Your task to perform on an android device: Open settings on Google Maps Image 0: 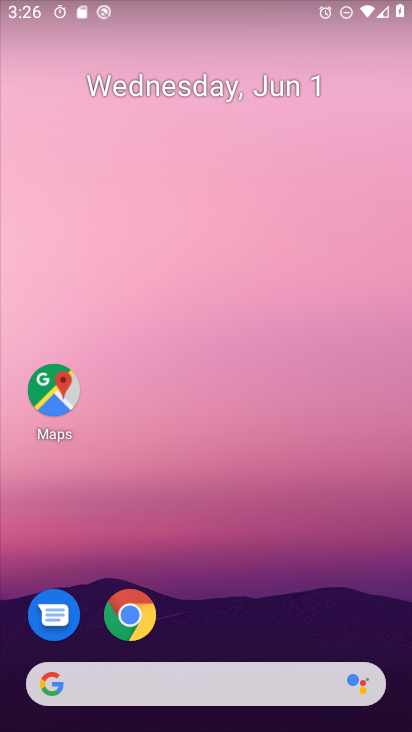
Step 0: drag from (294, 652) to (255, 31)
Your task to perform on an android device: Open settings on Google Maps Image 1: 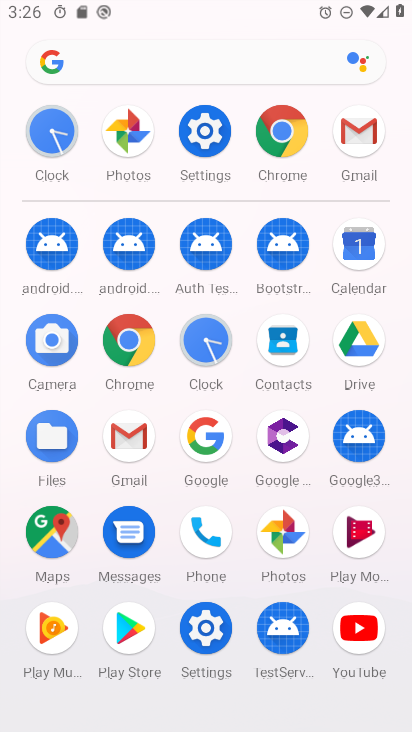
Step 1: click (52, 546)
Your task to perform on an android device: Open settings on Google Maps Image 2: 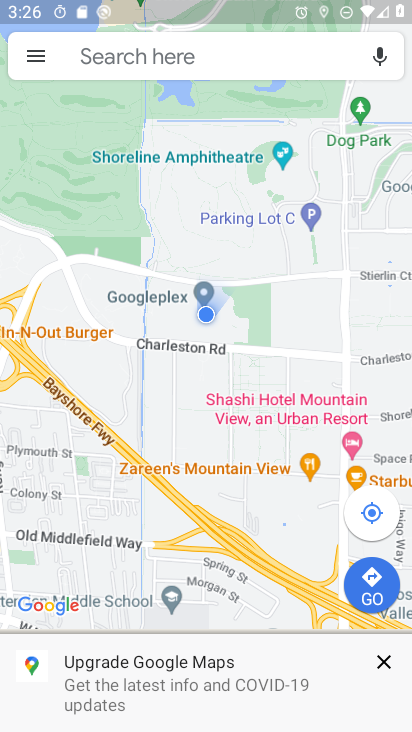
Step 2: click (38, 60)
Your task to perform on an android device: Open settings on Google Maps Image 3: 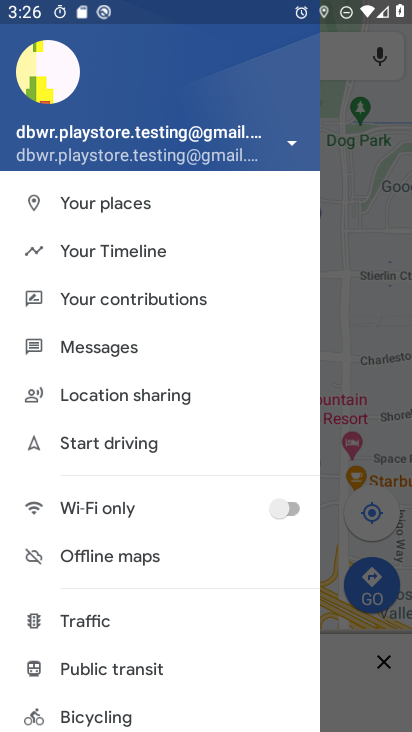
Step 3: drag from (125, 671) to (95, 182)
Your task to perform on an android device: Open settings on Google Maps Image 4: 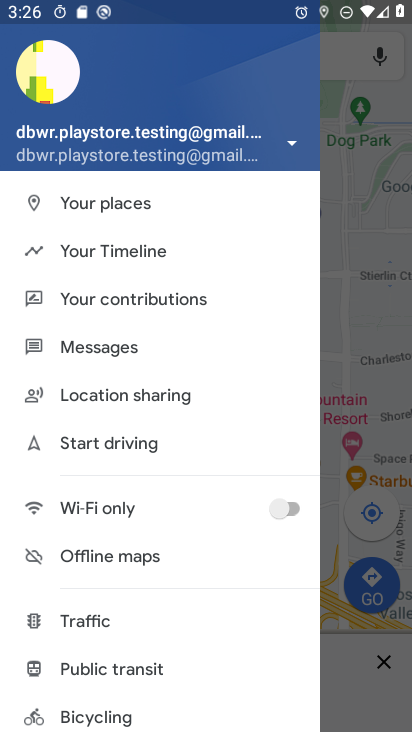
Step 4: drag from (222, 563) to (219, 177)
Your task to perform on an android device: Open settings on Google Maps Image 5: 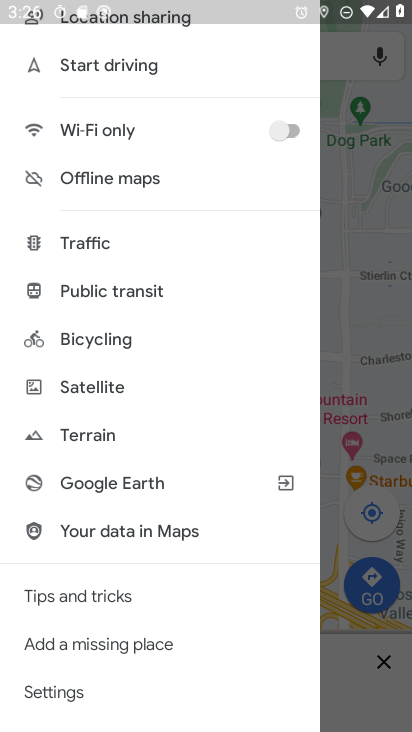
Step 5: click (61, 703)
Your task to perform on an android device: Open settings on Google Maps Image 6: 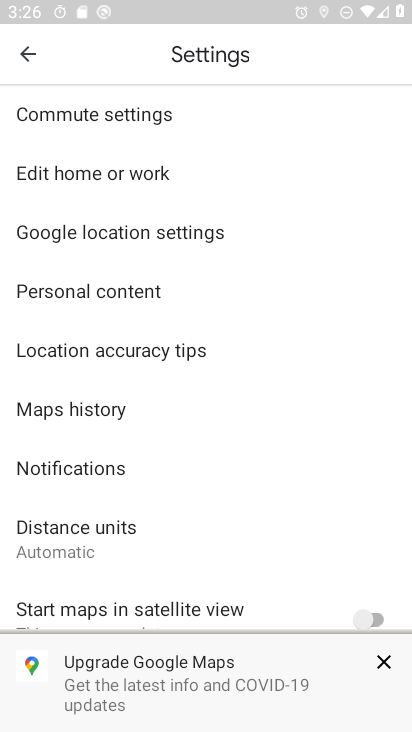
Step 6: click (387, 662)
Your task to perform on an android device: Open settings on Google Maps Image 7: 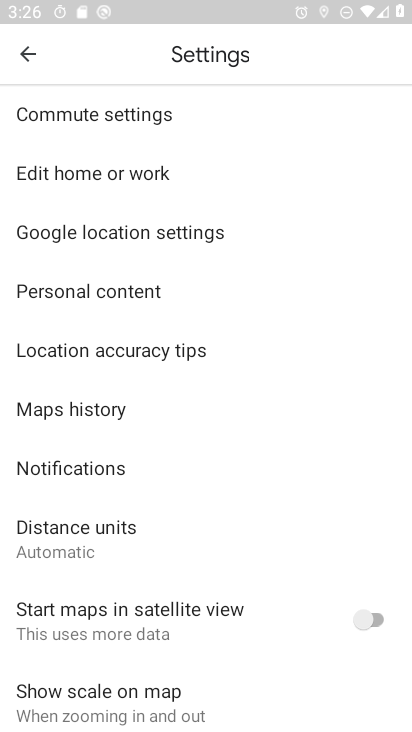
Step 7: task complete